Your task to perform on an android device: Open the calendar and show me this week's events? Image 0: 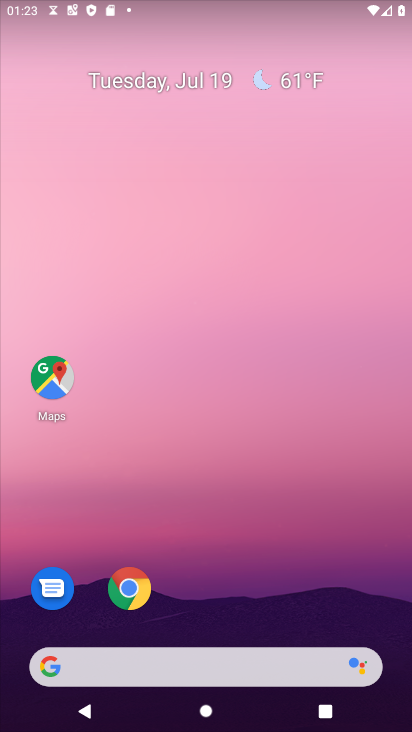
Step 0: drag from (284, 671) to (218, 280)
Your task to perform on an android device: Open the calendar and show me this week's events? Image 1: 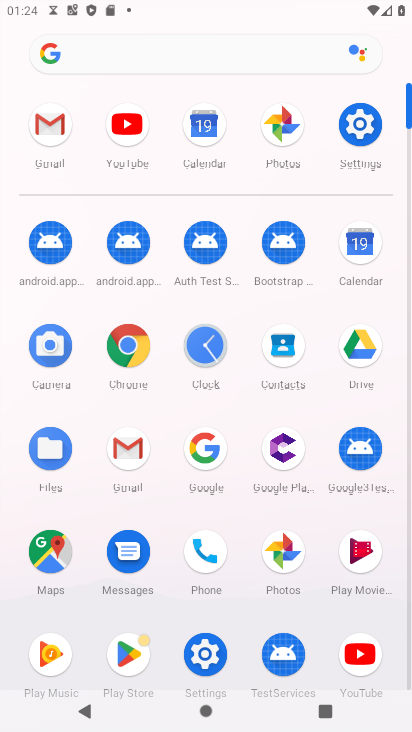
Step 1: click (357, 242)
Your task to perform on an android device: Open the calendar and show me this week's events? Image 2: 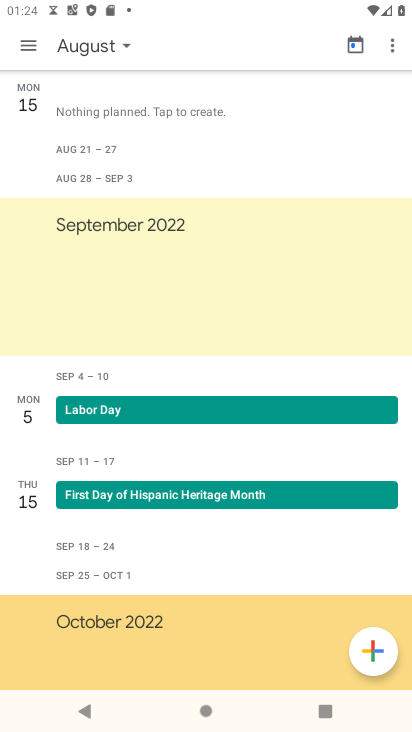
Step 2: click (23, 41)
Your task to perform on an android device: Open the calendar and show me this week's events? Image 3: 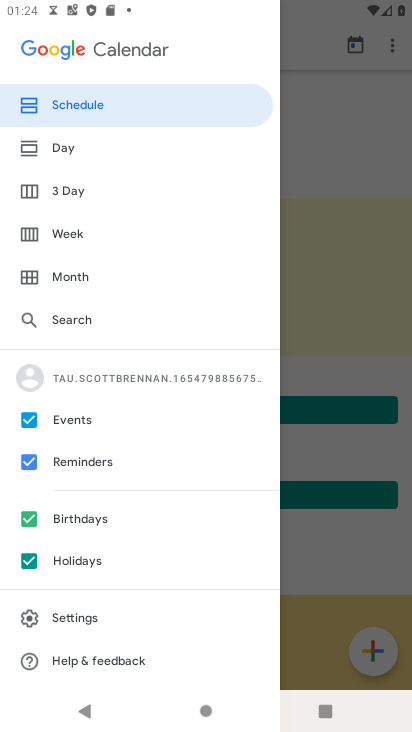
Step 3: click (60, 283)
Your task to perform on an android device: Open the calendar and show me this week's events? Image 4: 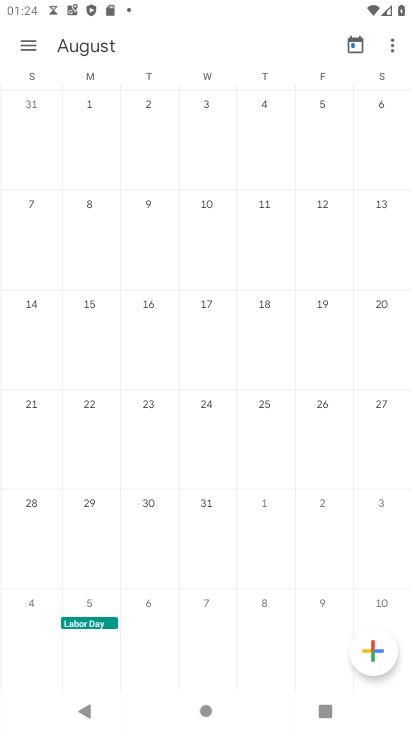
Step 4: drag from (63, 370) to (411, 320)
Your task to perform on an android device: Open the calendar and show me this week's events? Image 5: 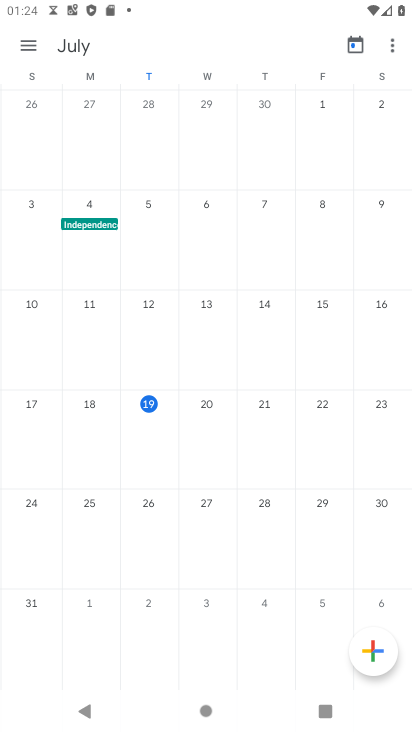
Step 5: click (87, 430)
Your task to perform on an android device: Open the calendar and show me this week's events? Image 6: 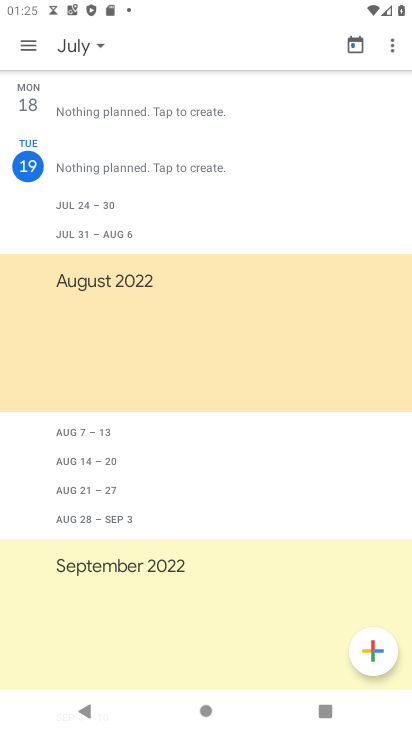
Step 6: task complete